Your task to perform on an android device: Go to Google Image 0: 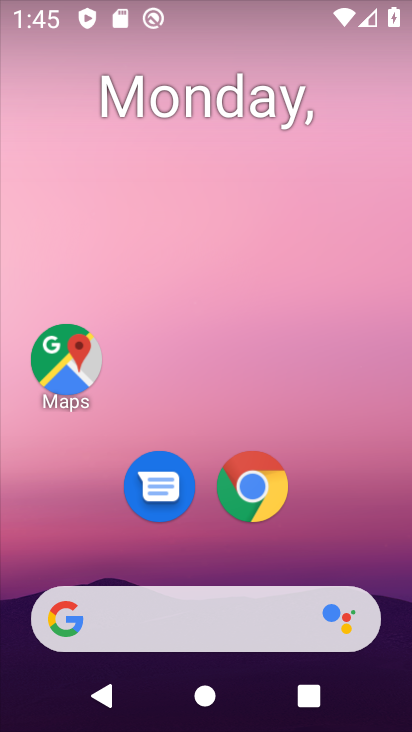
Step 0: drag from (223, 554) to (246, 43)
Your task to perform on an android device: Go to Google Image 1: 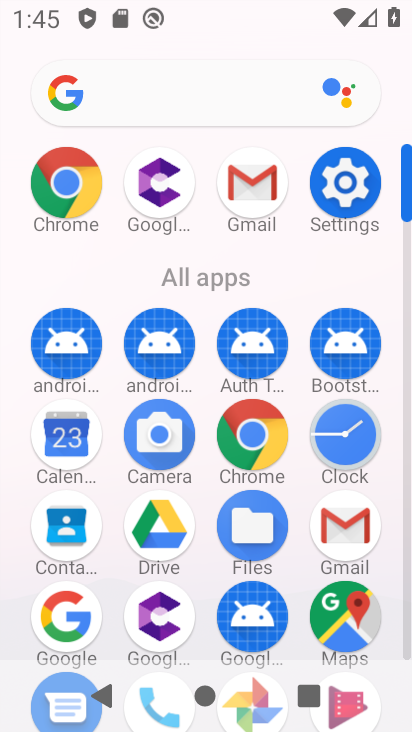
Step 1: click (71, 615)
Your task to perform on an android device: Go to Google Image 2: 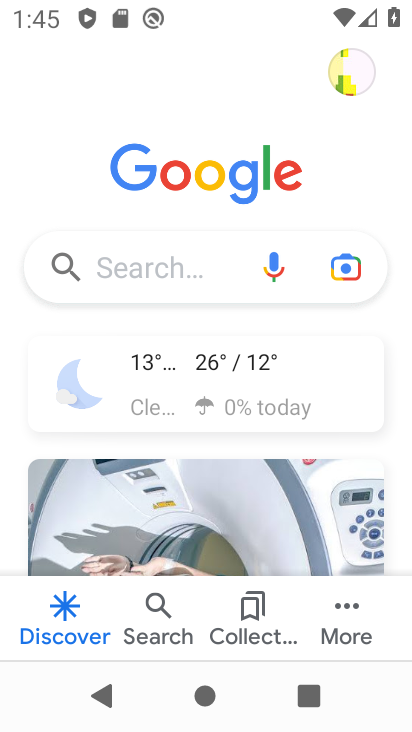
Step 2: task complete